Your task to perform on an android device: Go to calendar. Show me events next week Image 0: 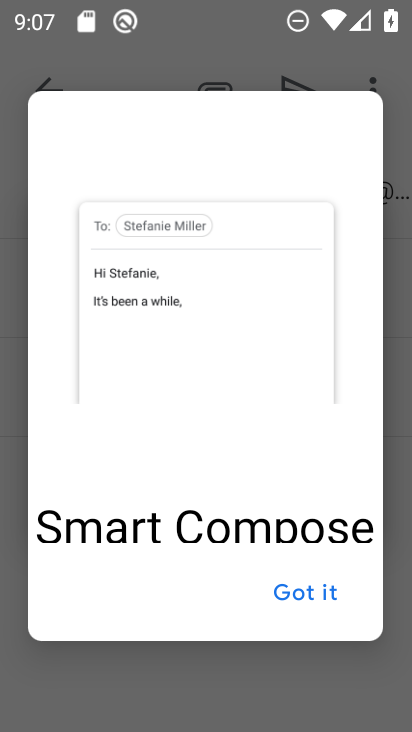
Step 0: click (297, 584)
Your task to perform on an android device: Go to calendar. Show me events next week Image 1: 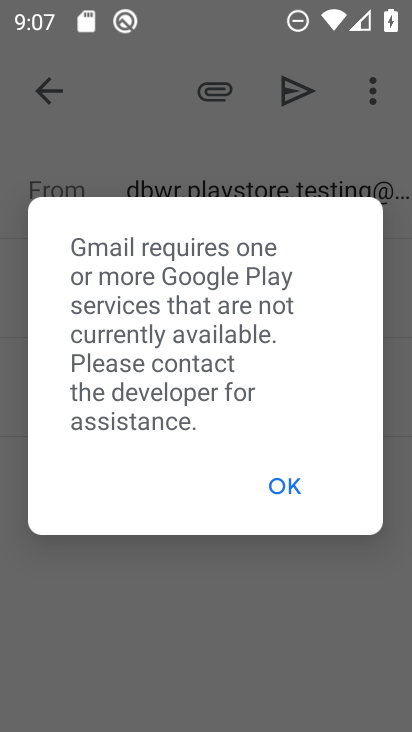
Step 1: press back button
Your task to perform on an android device: Go to calendar. Show me events next week Image 2: 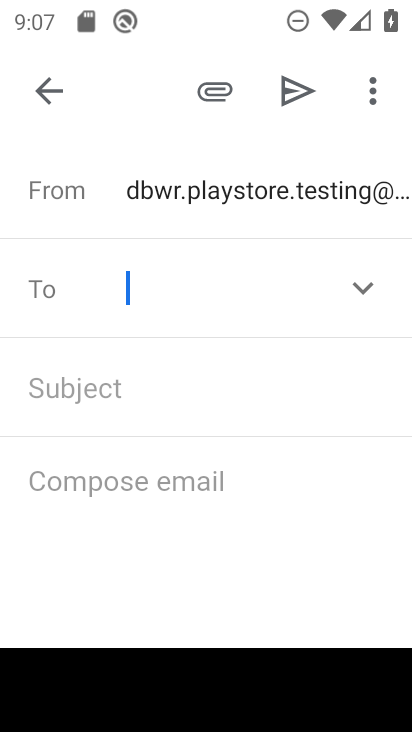
Step 2: press home button
Your task to perform on an android device: Go to calendar. Show me events next week Image 3: 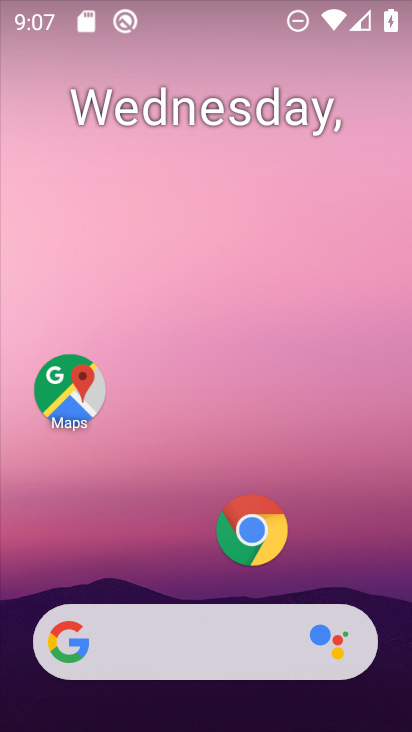
Step 3: drag from (167, 566) to (235, 38)
Your task to perform on an android device: Go to calendar. Show me events next week Image 4: 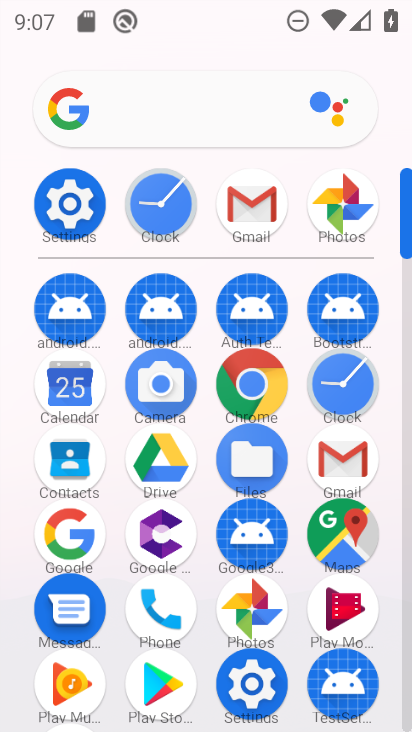
Step 4: click (69, 395)
Your task to perform on an android device: Go to calendar. Show me events next week Image 5: 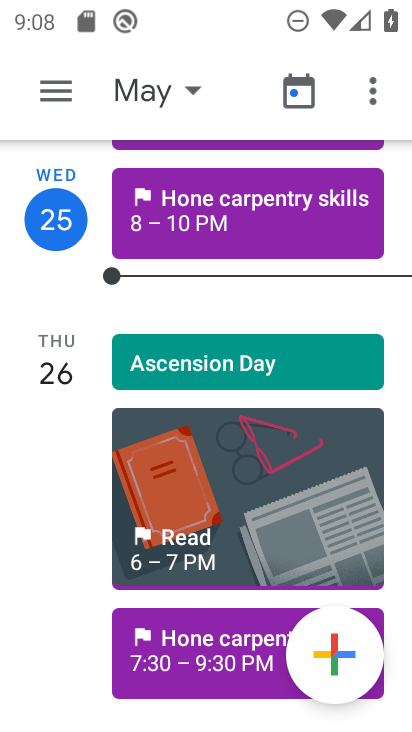
Step 5: drag from (197, 625) to (267, 87)
Your task to perform on an android device: Go to calendar. Show me events next week Image 6: 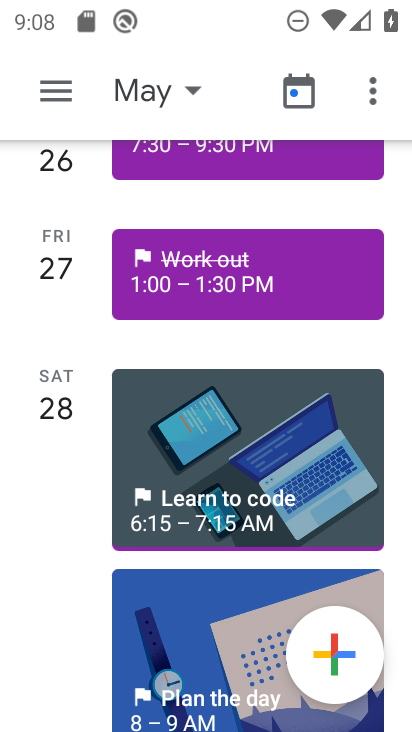
Step 6: drag from (189, 509) to (247, 82)
Your task to perform on an android device: Go to calendar. Show me events next week Image 7: 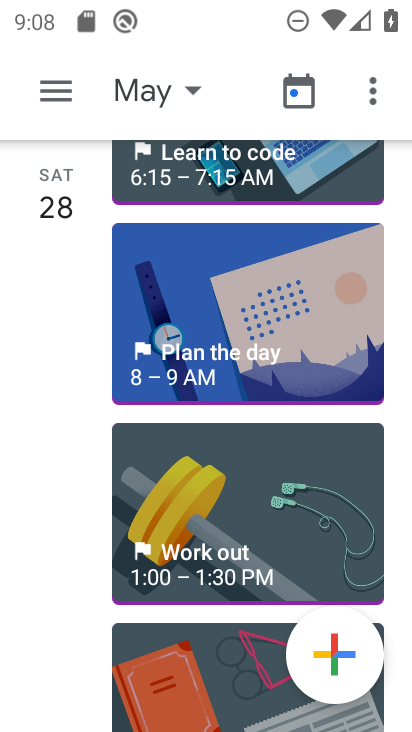
Step 7: drag from (171, 609) to (259, 78)
Your task to perform on an android device: Go to calendar. Show me events next week Image 8: 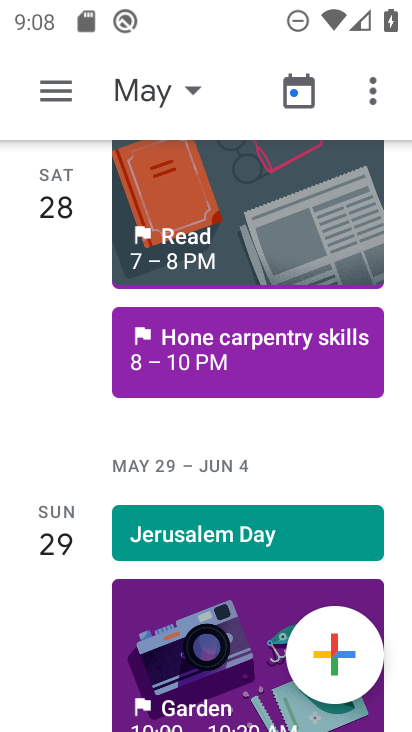
Step 8: drag from (168, 603) to (253, 185)
Your task to perform on an android device: Go to calendar. Show me events next week Image 9: 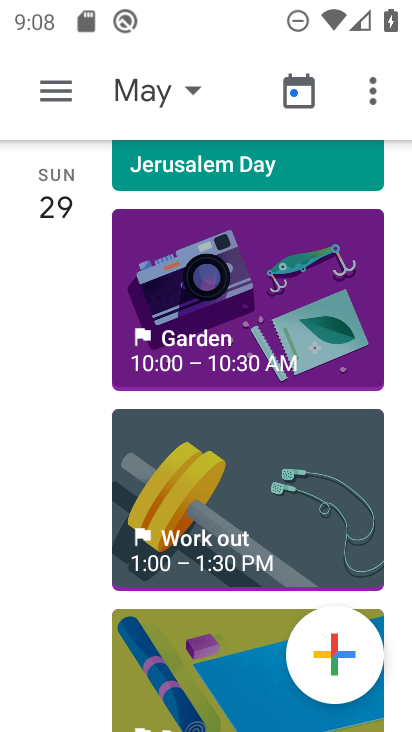
Step 9: drag from (178, 655) to (282, 135)
Your task to perform on an android device: Go to calendar. Show me events next week Image 10: 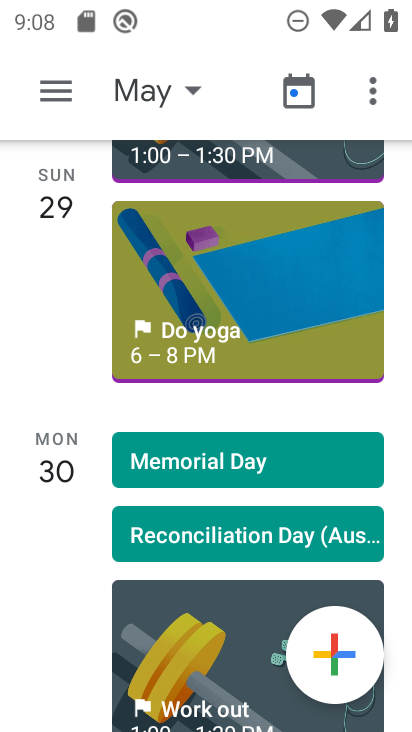
Step 10: click (188, 459)
Your task to perform on an android device: Go to calendar. Show me events next week Image 11: 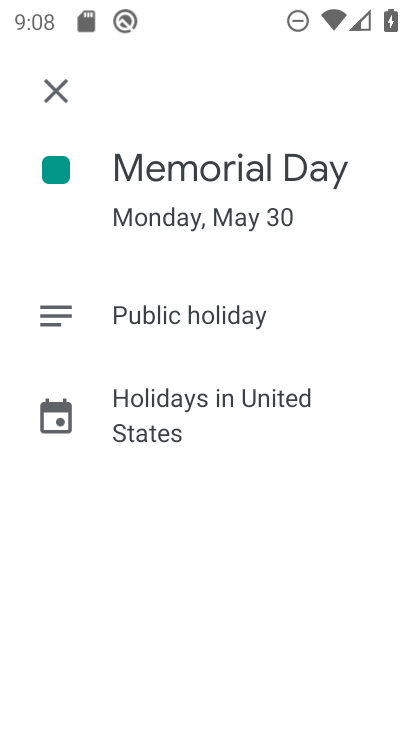
Step 11: task complete